Your task to perform on an android device: Open accessibility settings Image 0: 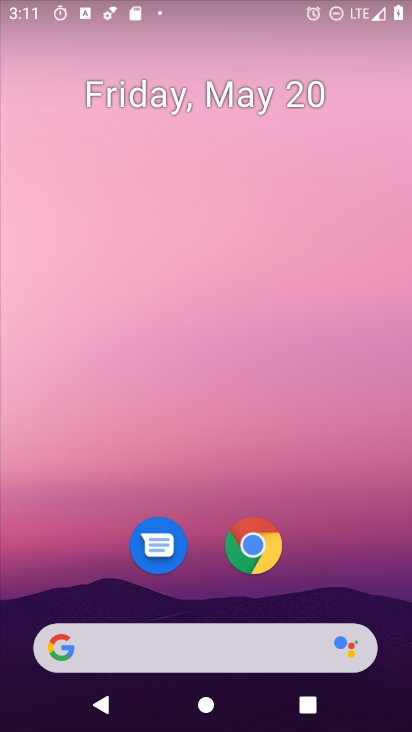
Step 0: drag from (286, 636) to (335, 156)
Your task to perform on an android device: Open accessibility settings Image 1: 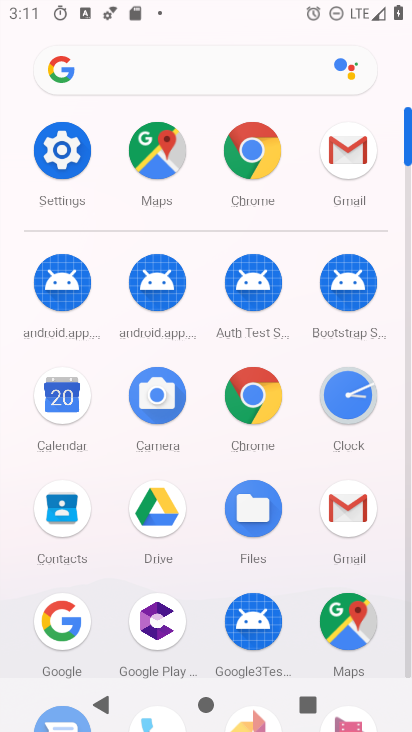
Step 1: click (56, 172)
Your task to perform on an android device: Open accessibility settings Image 2: 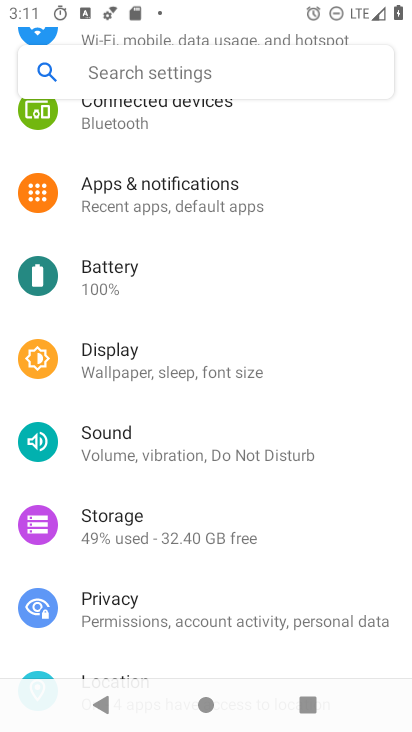
Step 2: drag from (204, 555) to (134, 129)
Your task to perform on an android device: Open accessibility settings Image 3: 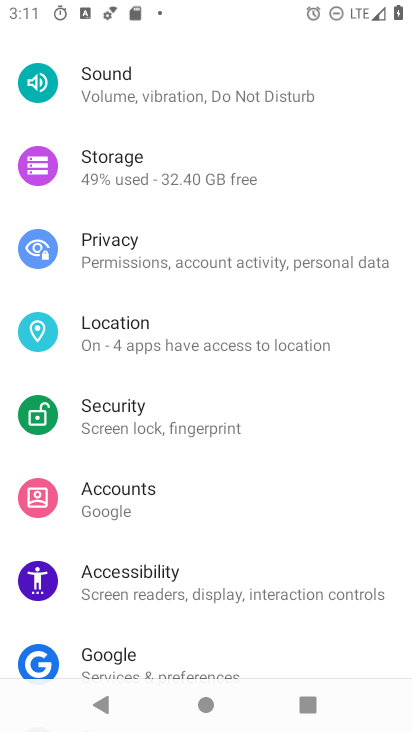
Step 3: drag from (230, 602) to (240, 229)
Your task to perform on an android device: Open accessibility settings Image 4: 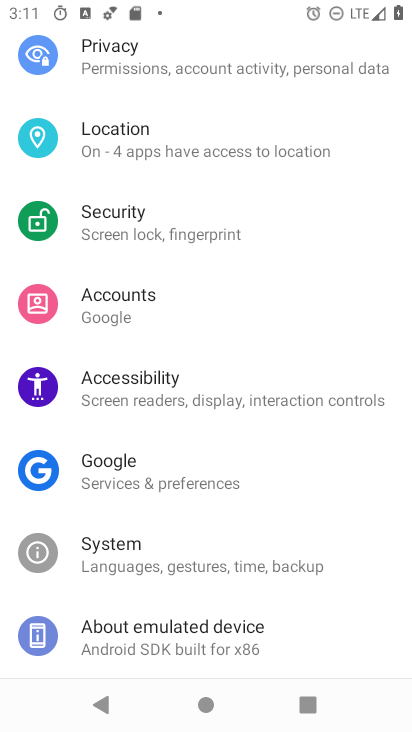
Step 4: click (175, 395)
Your task to perform on an android device: Open accessibility settings Image 5: 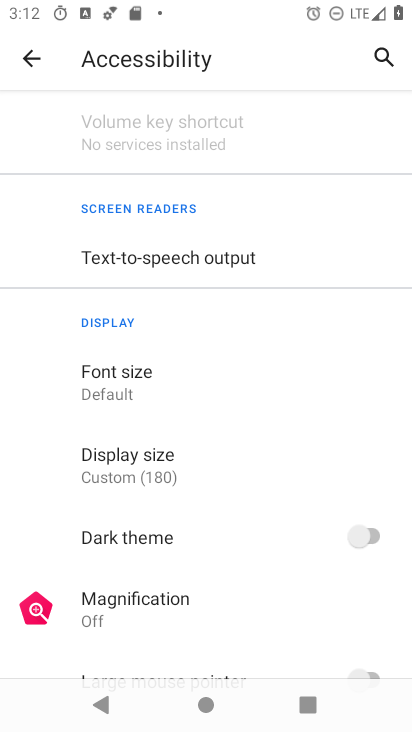
Step 5: drag from (165, 615) to (180, 196)
Your task to perform on an android device: Open accessibility settings Image 6: 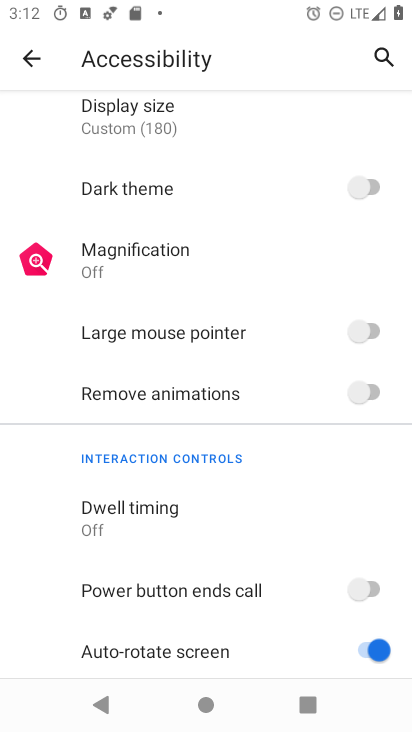
Step 6: drag from (157, 383) to (174, 660)
Your task to perform on an android device: Open accessibility settings Image 7: 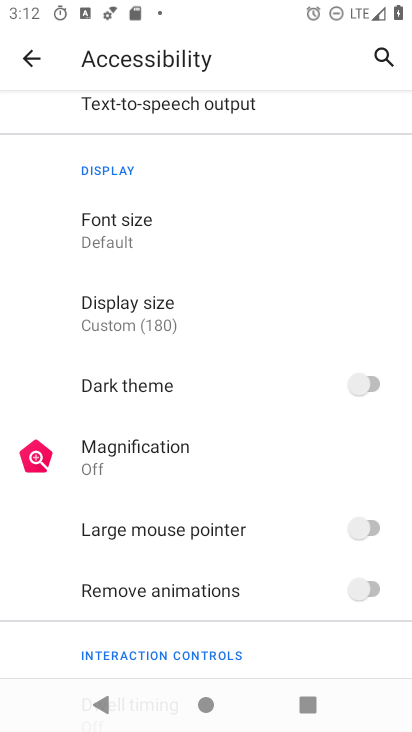
Step 7: click (153, 227)
Your task to perform on an android device: Open accessibility settings Image 8: 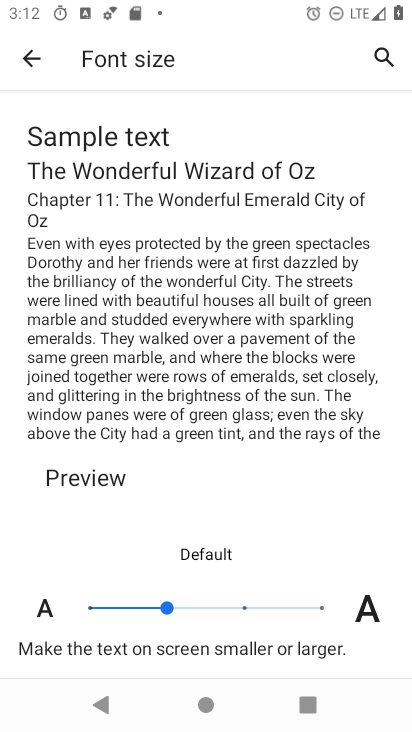
Step 8: task complete